Your task to perform on an android device: manage bookmarks in the chrome app Image 0: 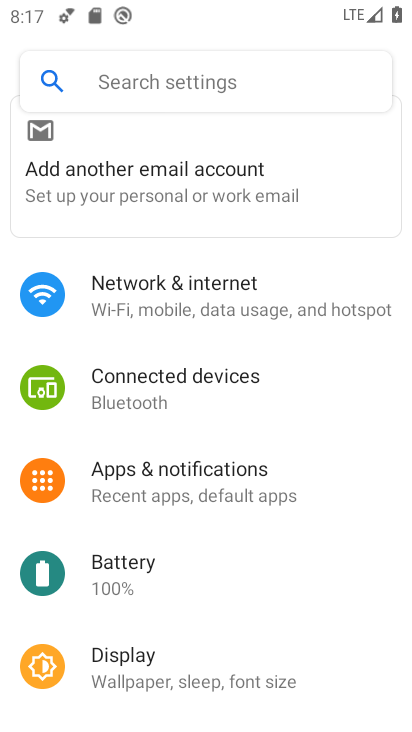
Step 0: press home button
Your task to perform on an android device: manage bookmarks in the chrome app Image 1: 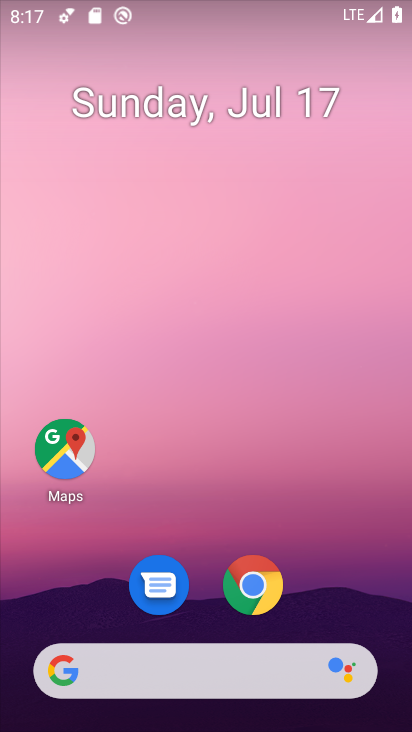
Step 1: click (242, 575)
Your task to perform on an android device: manage bookmarks in the chrome app Image 2: 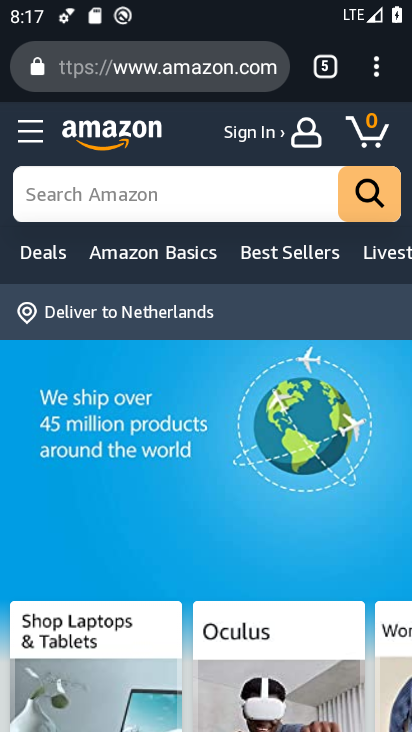
Step 2: click (375, 77)
Your task to perform on an android device: manage bookmarks in the chrome app Image 3: 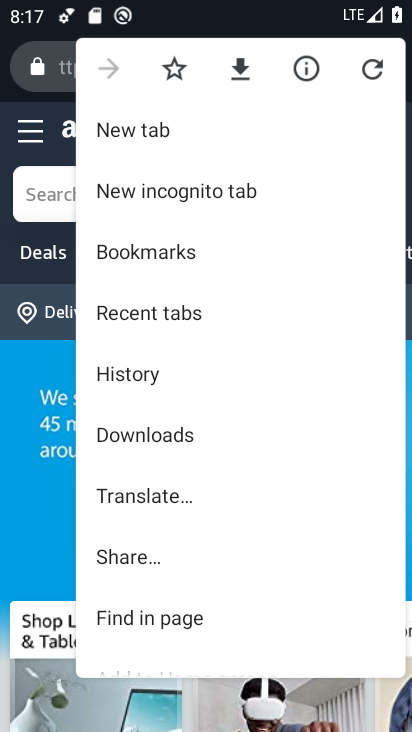
Step 3: click (200, 254)
Your task to perform on an android device: manage bookmarks in the chrome app Image 4: 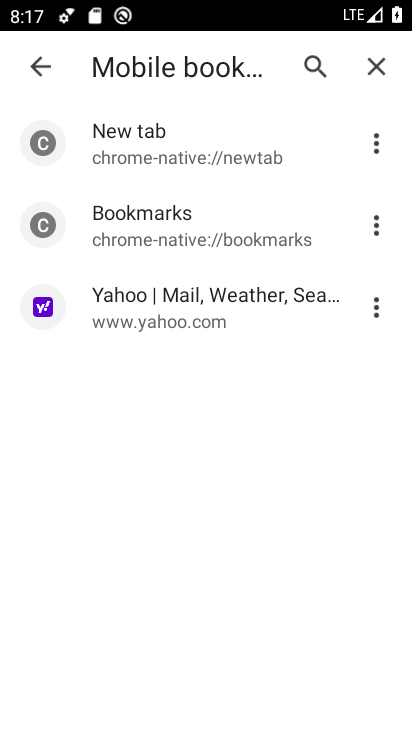
Step 4: click (379, 300)
Your task to perform on an android device: manage bookmarks in the chrome app Image 5: 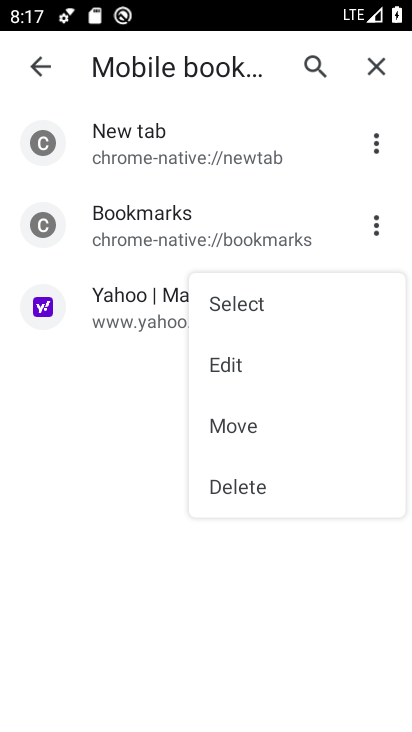
Step 5: click (295, 371)
Your task to perform on an android device: manage bookmarks in the chrome app Image 6: 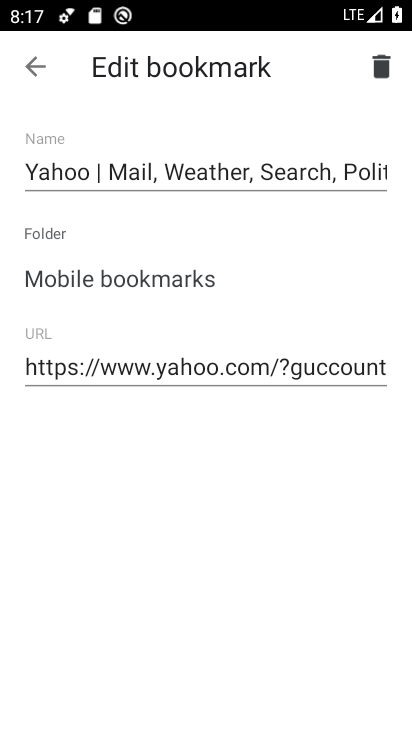
Step 6: task complete